Your task to perform on an android device: Go to location settings Image 0: 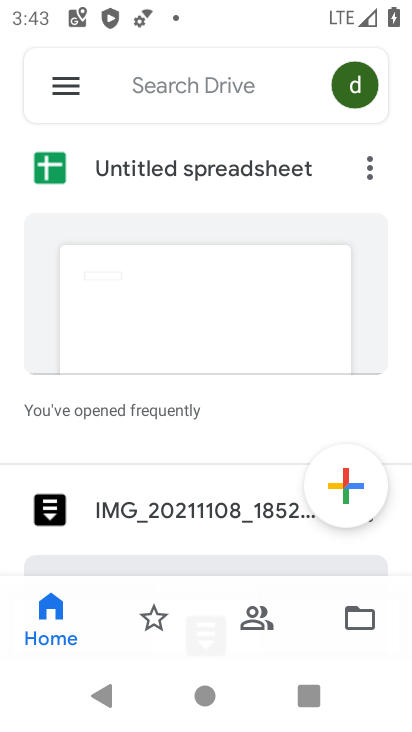
Step 0: press home button
Your task to perform on an android device: Go to location settings Image 1: 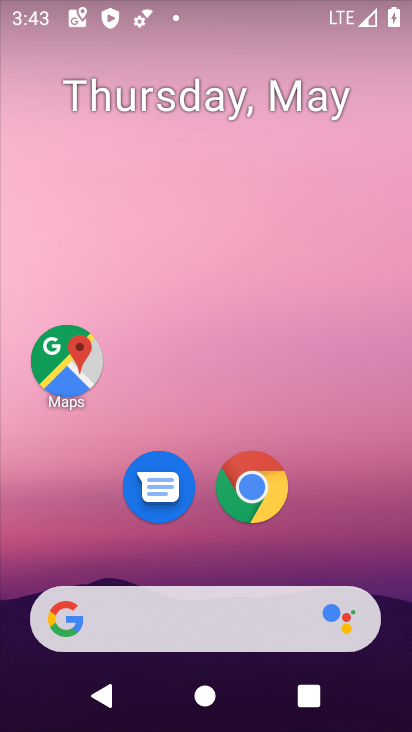
Step 1: drag from (201, 621) to (226, 133)
Your task to perform on an android device: Go to location settings Image 2: 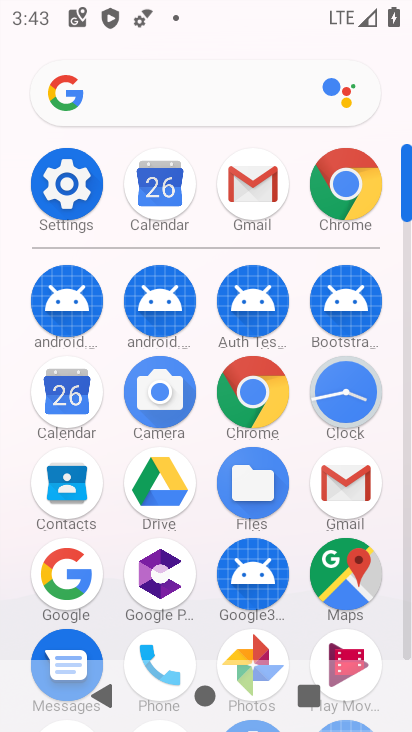
Step 2: click (72, 195)
Your task to perform on an android device: Go to location settings Image 3: 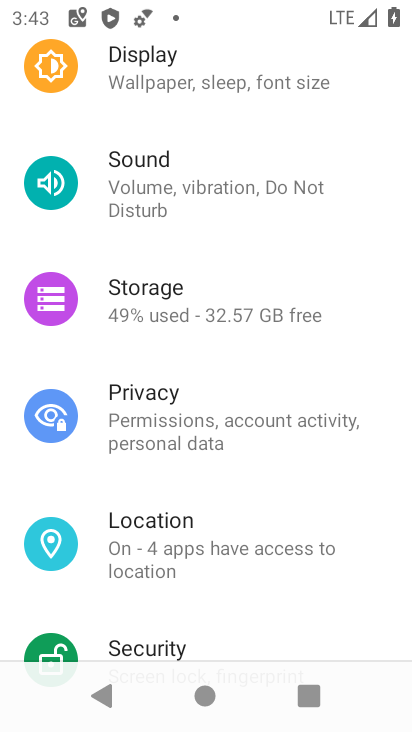
Step 3: drag from (228, 335) to (228, 607)
Your task to perform on an android device: Go to location settings Image 4: 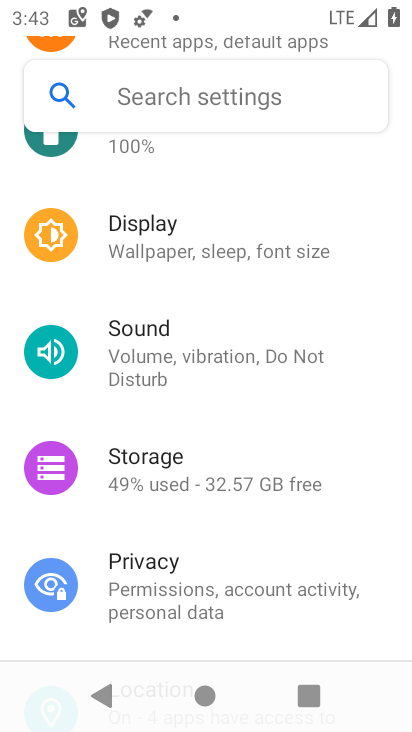
Step 4: drag from (211, 518) to (254, 107)
Your task to perform on an android device: Go to location settings Image 5: 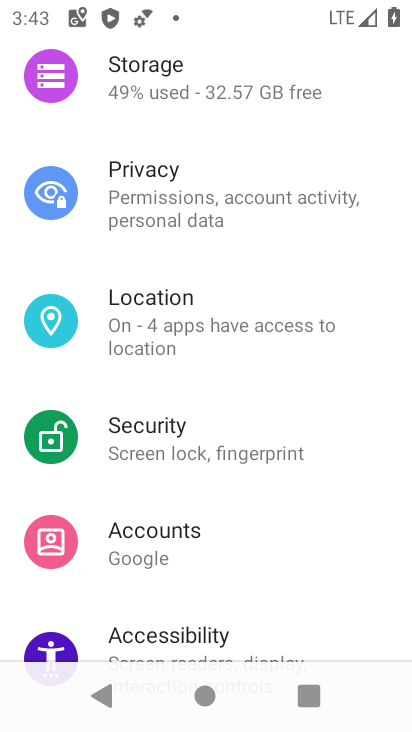
Step 5: drag from (223, 413) to (244, 134)
Your task to perform on an android device: Go to location settings Image 6: 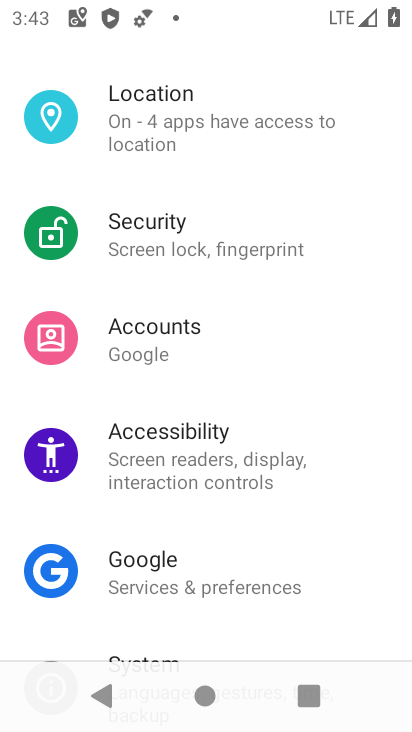
Step 6: click (243, 130)
Your task to perform on an android device: Go to location settings Image 7: 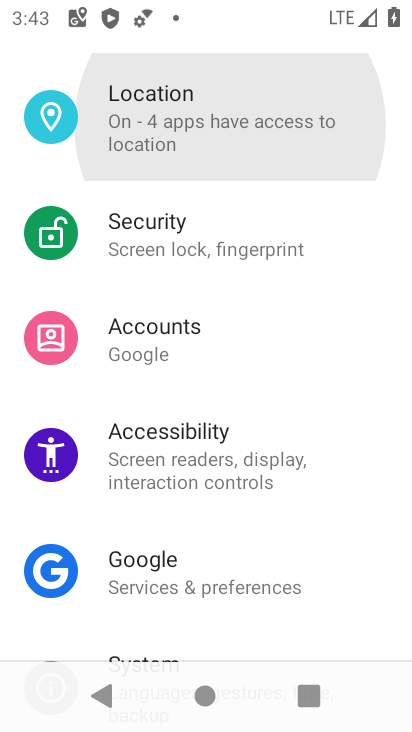
Step 7: click (253, 49)
Your task to perform on an android device: Go to location settings Image 8: 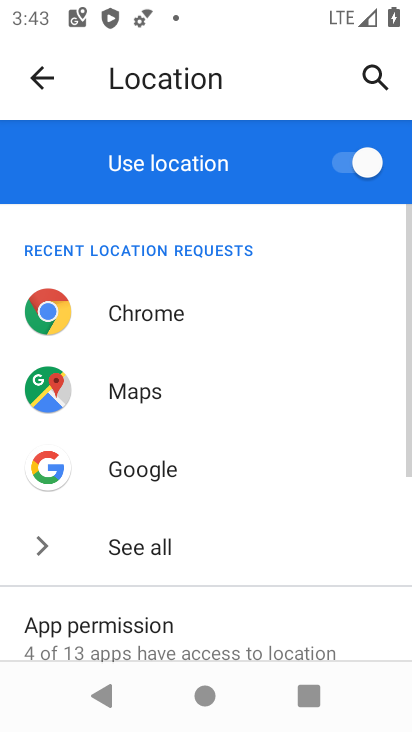
Step 8: drag from (154, 530) to (149, 133)
Your task to perform on an android device: Go to location settings Image 9: 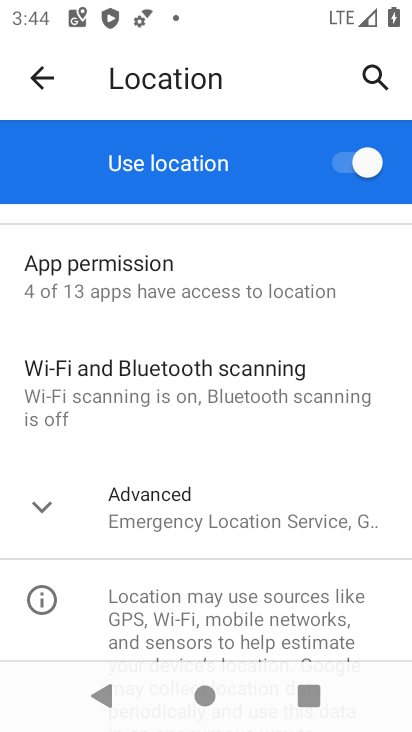
Step 9: click (147, 515)
Your task to perform on an android device: Go to location settings Image 10: 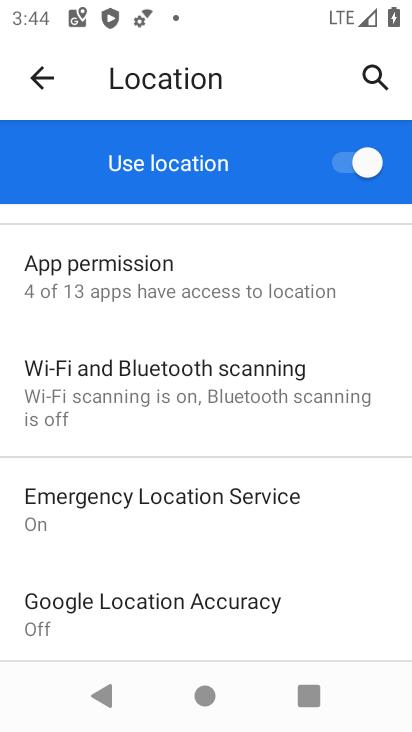
Step 10: task complete